Your task to perform on an android device: search for starred emails in the gmail app Image 0: 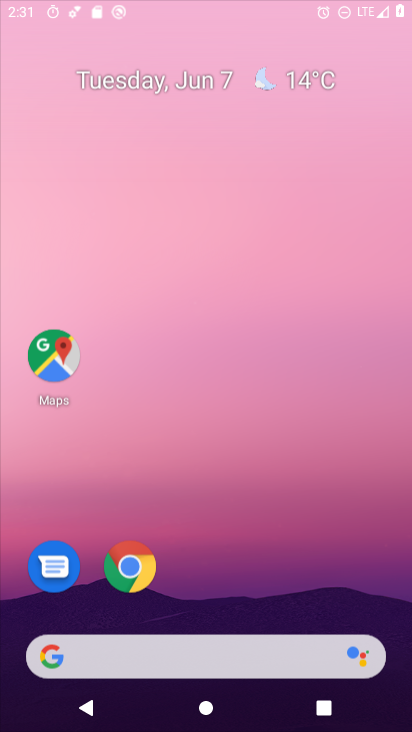
Step 0: click (379, 0)
Your task to perform on an android device: search for starred emails in the gmail app Image 1: 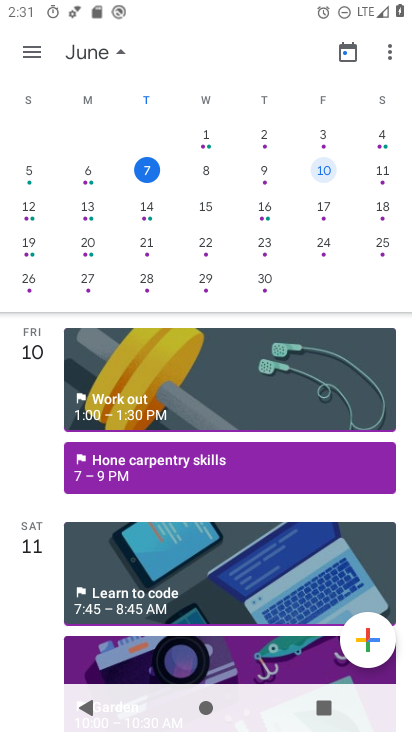
Step 1: press home button
Your task to perform on an android device: search for starred emails in the gmail app Image 2: 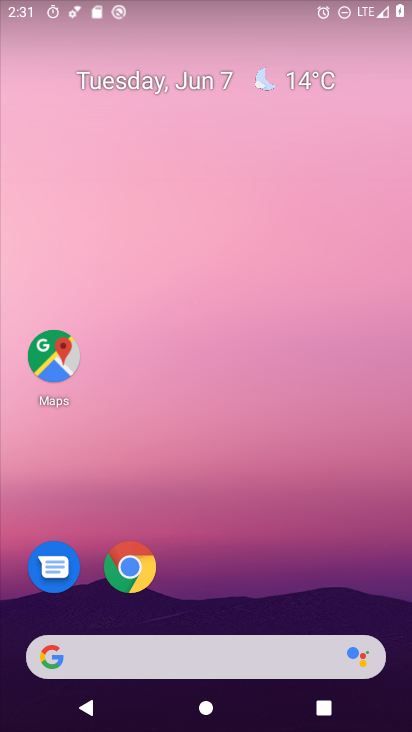
Step 2: drag from (345, 597) to (403, 99)
Your task to perform on an android device: search for starred emails in the gmail app Image 3: 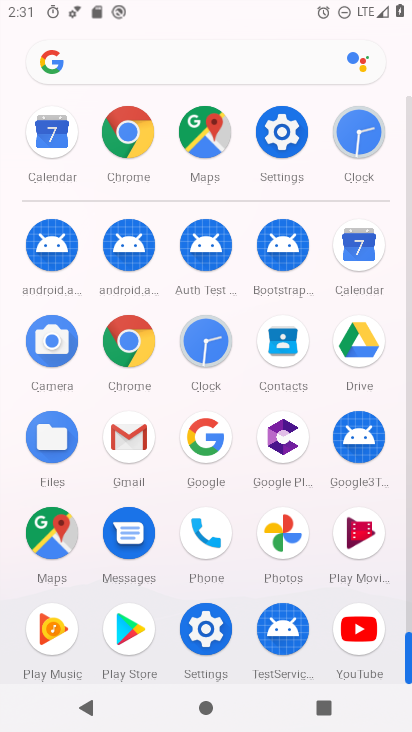
Step 3: click (114, 441)
Your task to perform on an android device: search for starred emails in the gmail app Image 4: 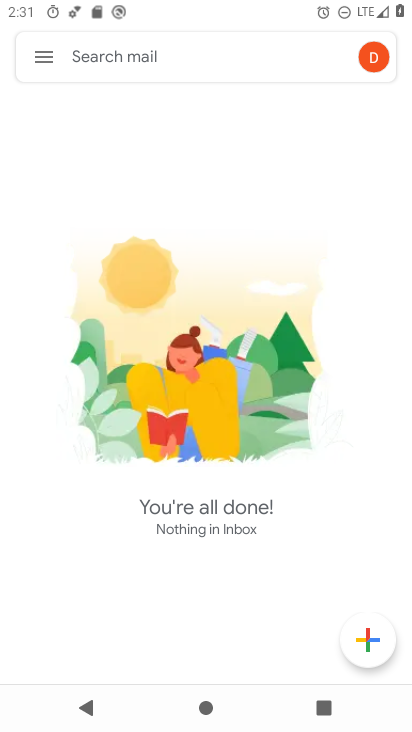
Step 4: click (56, 58)
Your task to perform on an android device: search for starred emails in the gmail app Image 5: 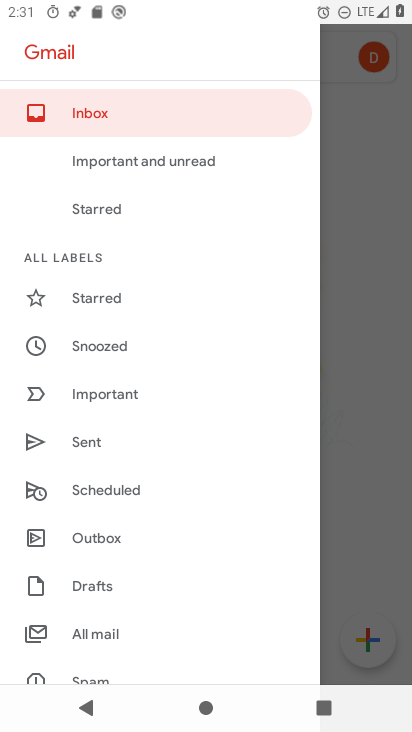
Step 5: click (88, 293)
Your task to perform on an android device: search for starred emails in the gmail app Image 6: 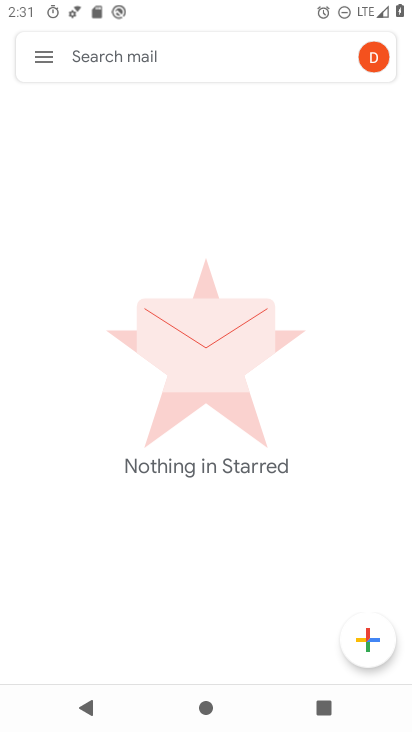
Step 6: task complete